Your task to perform on an android device: set default search engine in the chrome app Image 0: 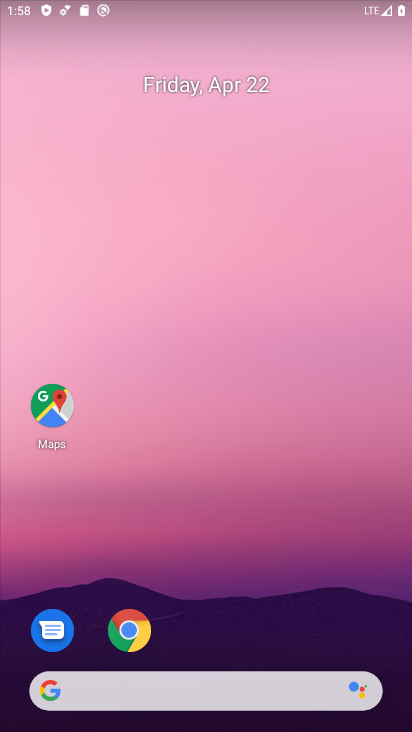
Step 0: drag from (308, 166) to (373, 237)
Your task to perform on an android device: set default search engine in the chrome app Image 1: 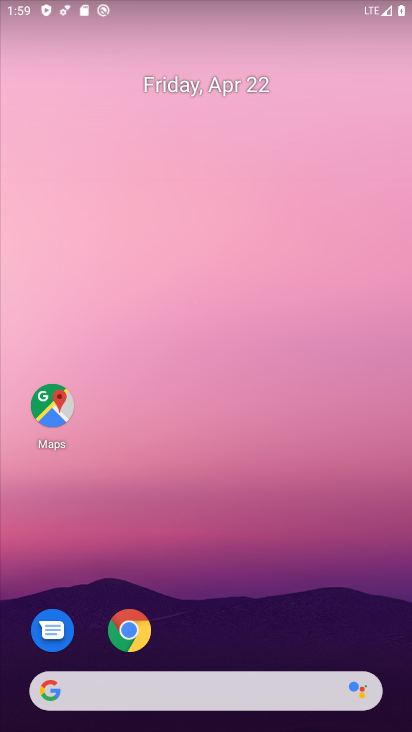
Step 1: drag from (331, 531) to (329, 207)
Your task to perform on an android device: set default search engine in the chrome app Image 2: 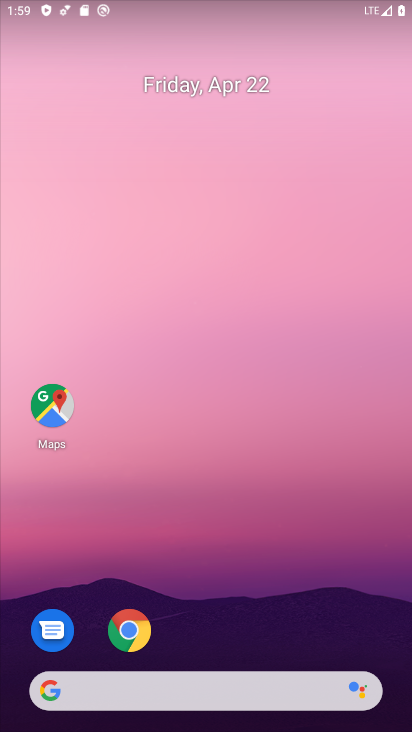
Step 2: drag from (316, 623) to (317, 96)
Your task to perform on an android device: set default search engine in the chrome app Image 3: 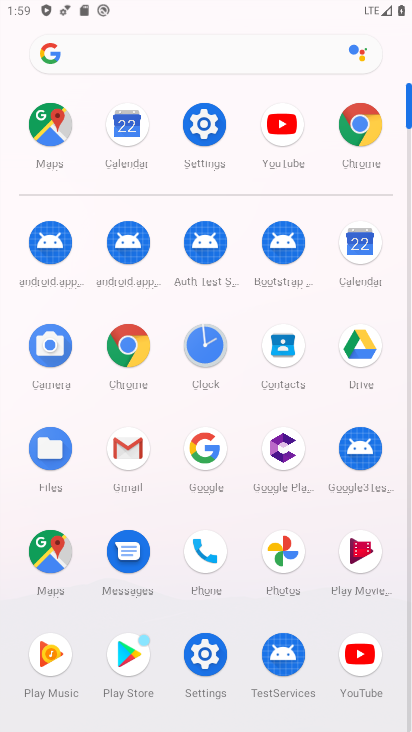
Step 3: click (131, 347)
Your task to perform on an android device: set default search engine in the chrome app Image 4: 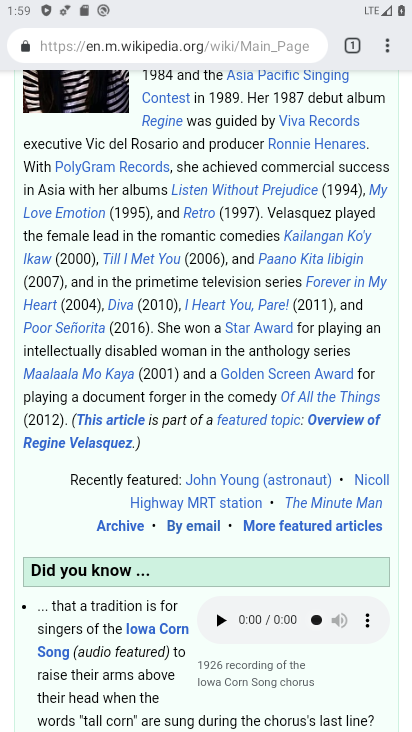
Step 4: drag from (400, 44) to (230, 550)
Your task to perform on an android device: set default search engine in the chrome app Image 5: 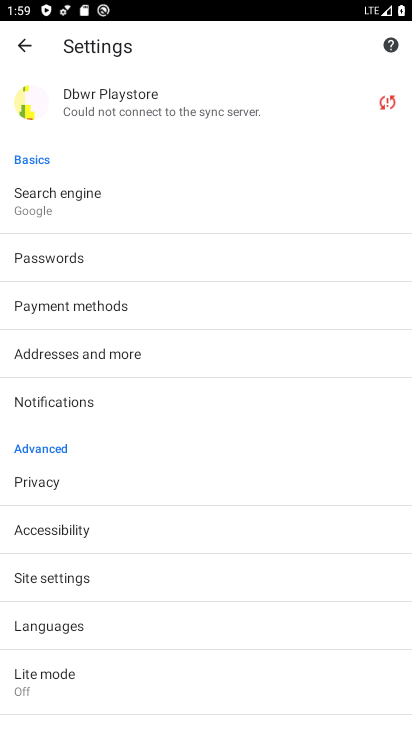
Step 5: click (119, 192)
Your task to perform on an android device: set default search engine in the chrome app Image 6: 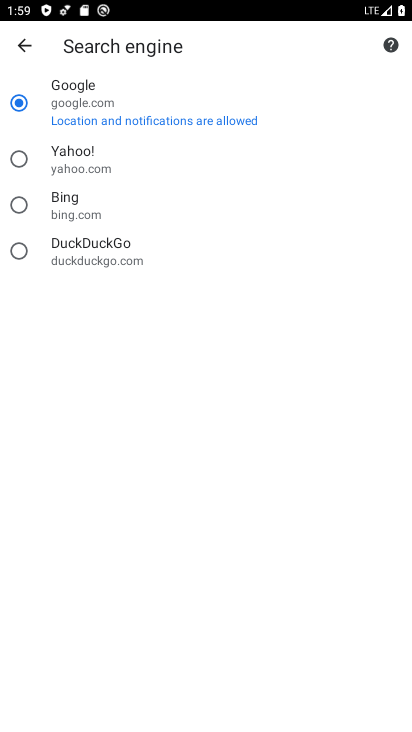
Step 6: click (72, 162)
Your task to perform on an android device: set default search engine in the chrome app Image 7: 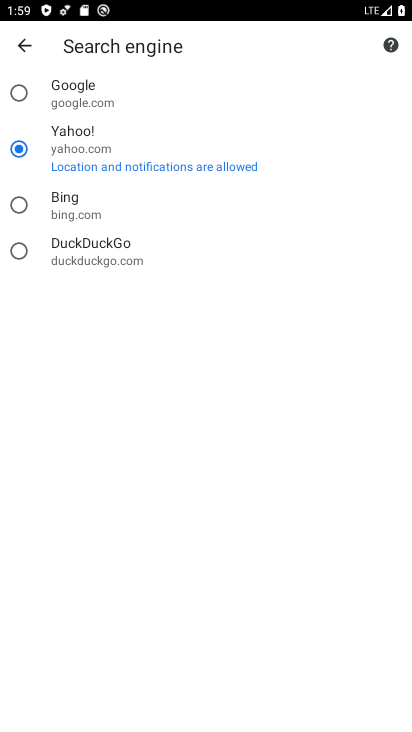
Step 7: task complete